Your task to perform on an android device: Show me popular games on the Play Store Image 0: 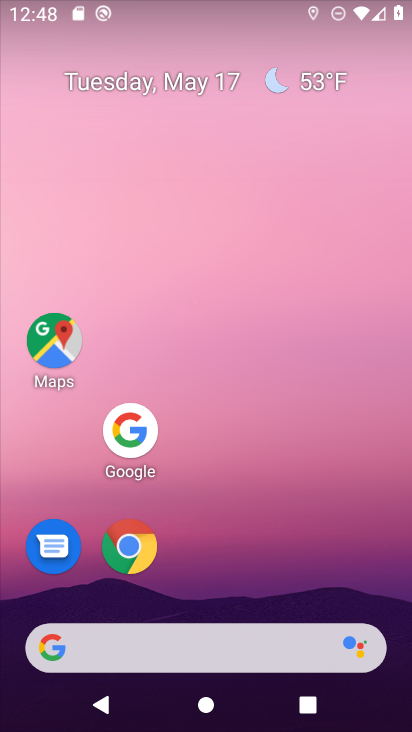
Step 0: drag from (219, 569) to (207, 85)
Your task to perform on an android device: Show me popular games on the Play Store Image 1: 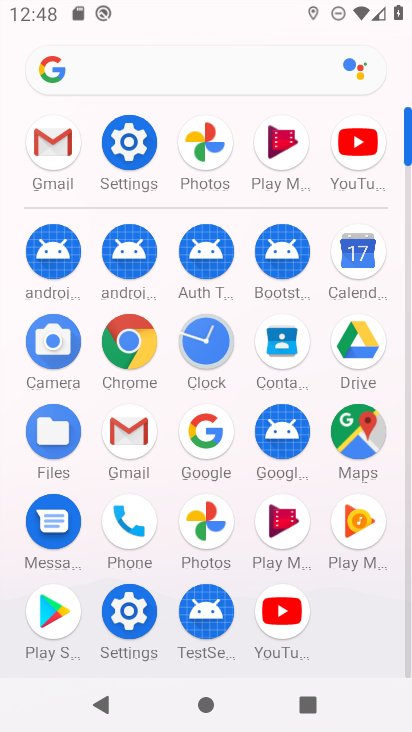
Step 1: click (54, 613)
Your task to perform on an android device: Show me popular games on the Play Store Image 2: 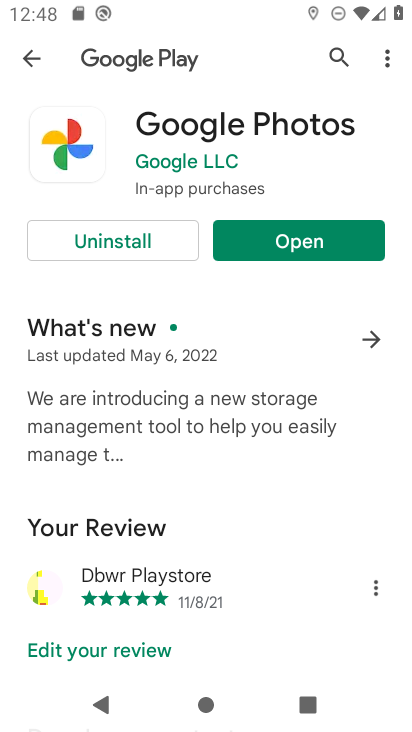
Step 2: press back button
Your task to perform on an android device: Show me popular games on the Play Store Image 3: 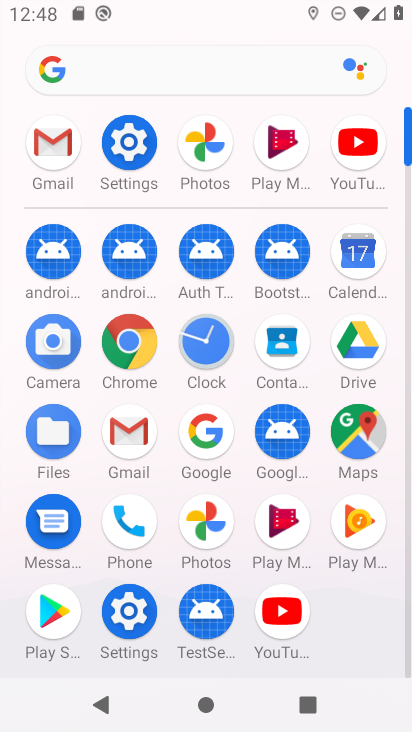
Step 3: click (59, 602)
Your task to perform on an android device: Show me popular games on the Play Store Image 4: 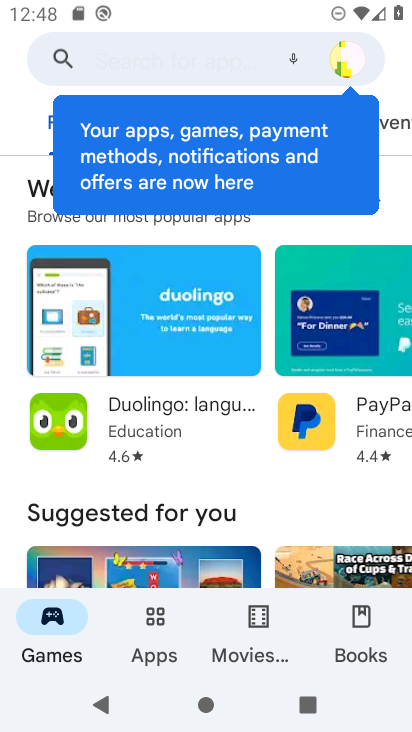
Step 4: drag from (251, 516) to (261, 136)
Your task to perform on an android device: Show me popular games on the Play Store Image 5: 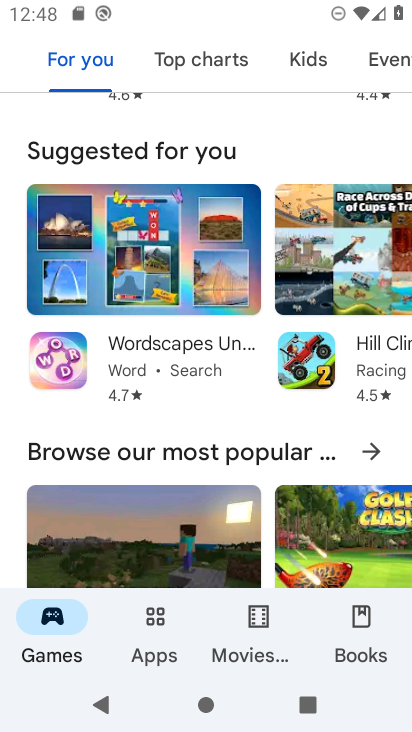
Step 5: click (366, 445)
Your task to perform on an android device: Show me popular games on the Play Store Image 6: 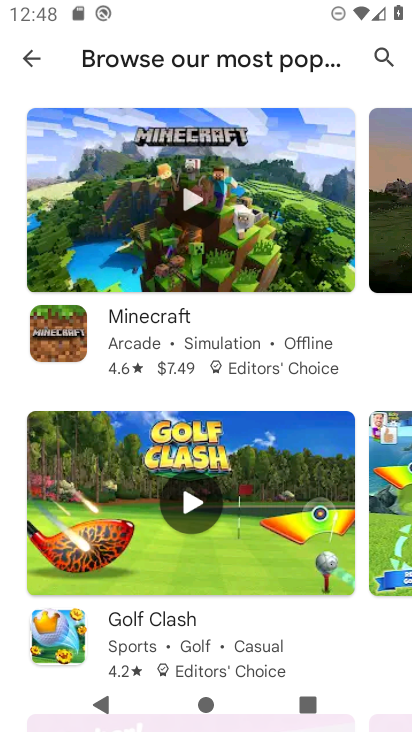
Step 6: task complete